Your task to perform on an android device: turn on sleep mode Image 0: 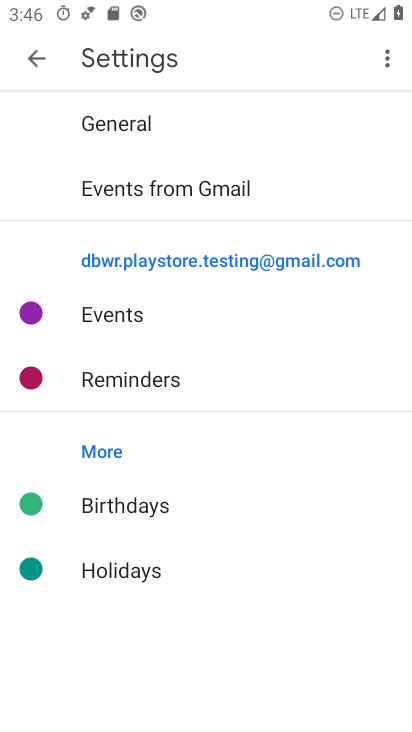
Step 0: press home button
Your task to perform on an android device: turn on sleep mode Image 1: 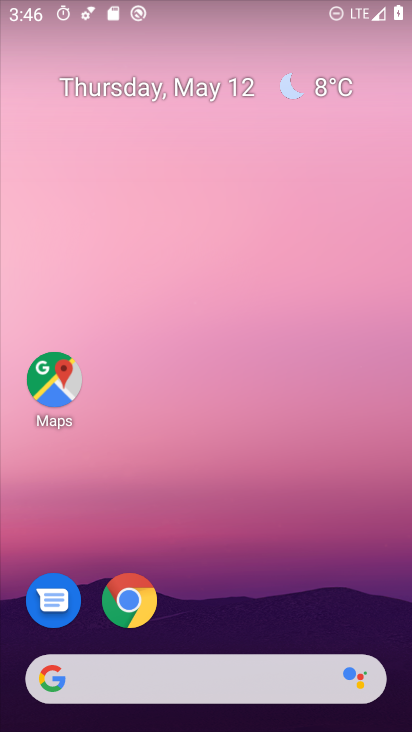
Step 1: drag from (225, 708) to (216, 223)
Your task to perform on an android device: turn on sleep mode Image 2: 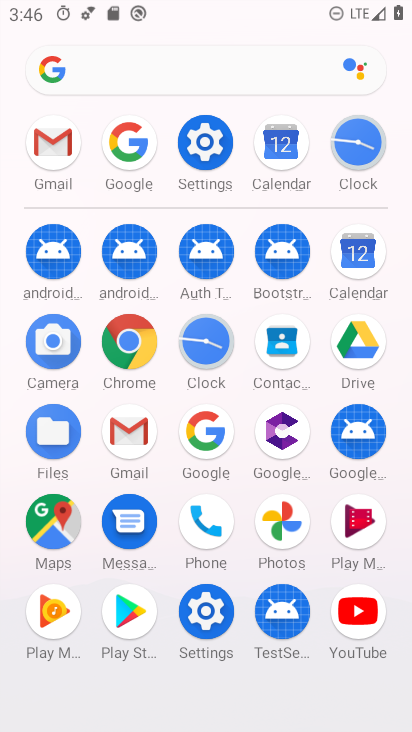
Step 2: click (202, 603)
Your task to perform on an android device: turn on sleep mode Image 3: 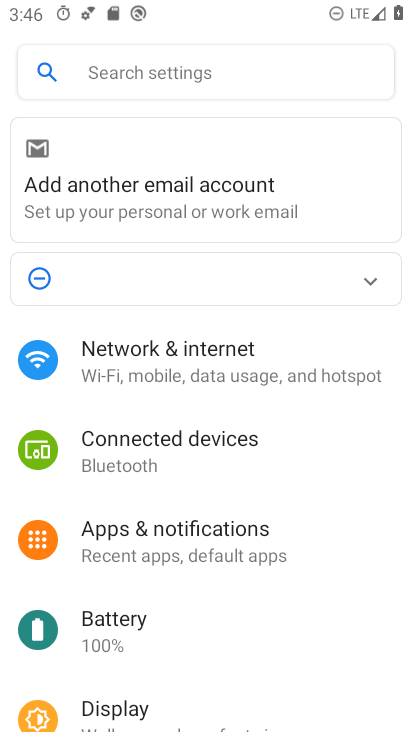
Step 3: task complete